Your task to perform on an android device: open the mobile data screen to see how much data has been used Image 0: 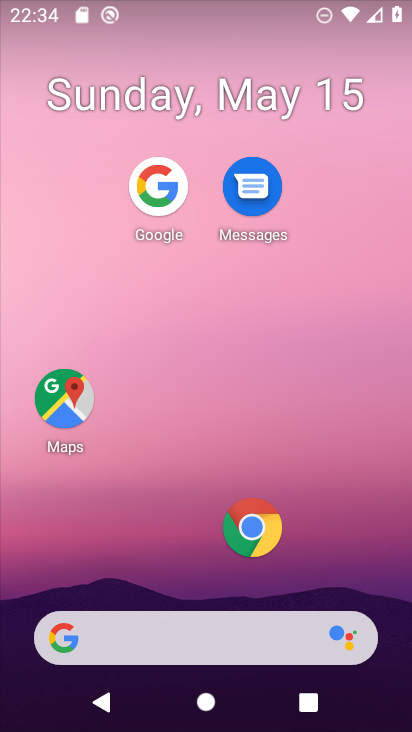
Step 0: press home button
Your task to perform on an android device: open the mobile data screen to see how much data has been used Image 1: 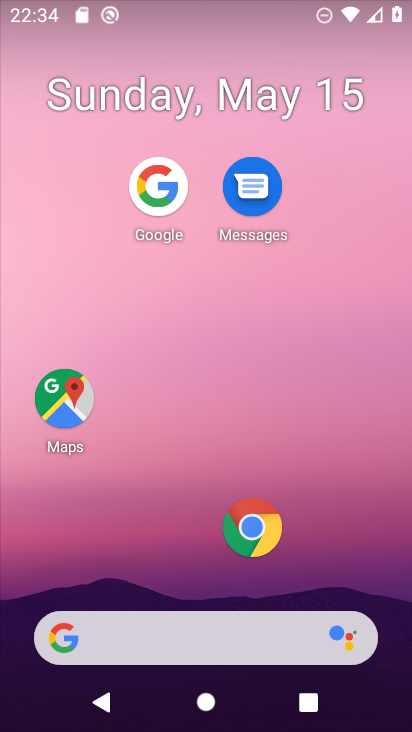
Step 1: drag from (182, 642) to (304, 165)
Your task to perform on an android device: open the mobile data screen to see how much data has been used Image 2: 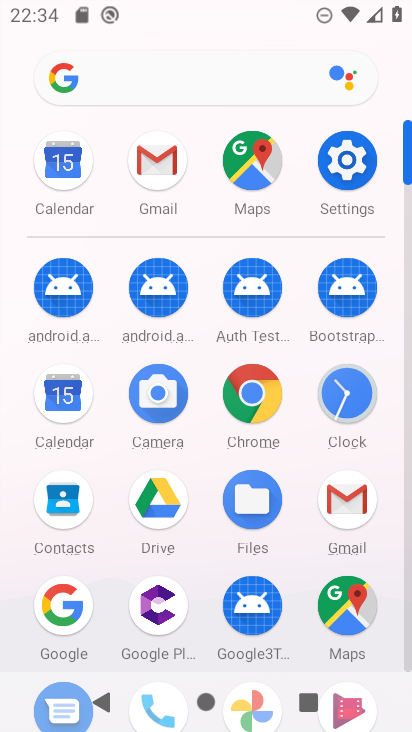
Step 2: click (357, 168)
Your task to perform on an android device: open the mobile data screen to see how much data has been used Image 3: 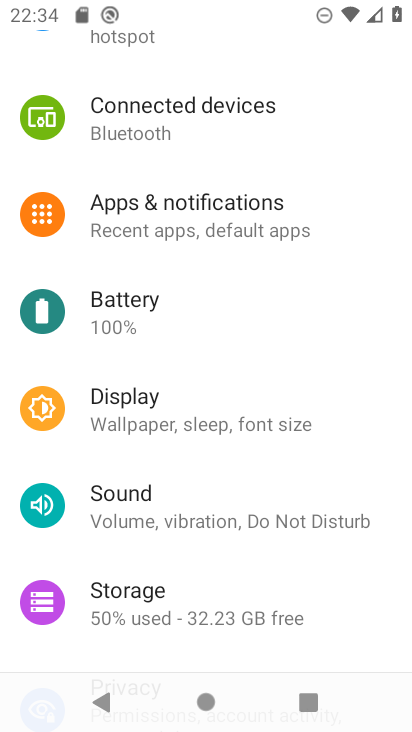
Step 3: drag from (328, 155) to (204, 531)
Your task to perform on an android device: open the mobile data screen to see how much data has been used Image 4: 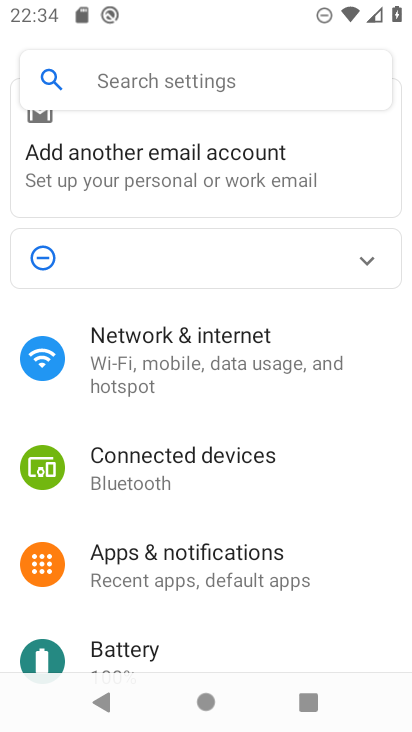
Step 4: click (219, 355)
Your task to perform on an android device: open the mobile data screen to see how much data has been used Image 5: 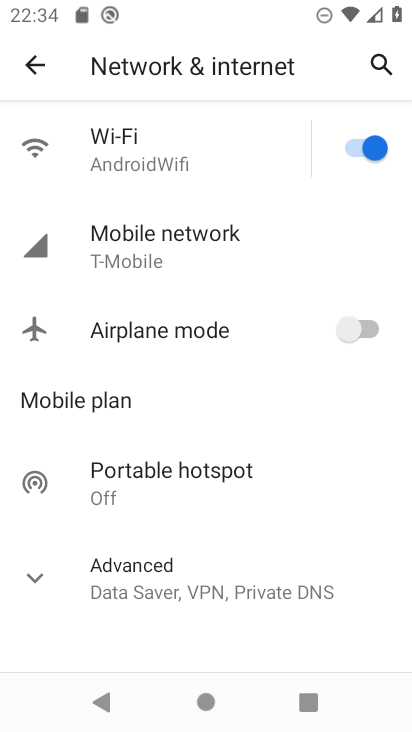
Step 5: click (188, 250)
Your task to perform on an android device: open the mobile data screen to see how much data has been used Image 6: 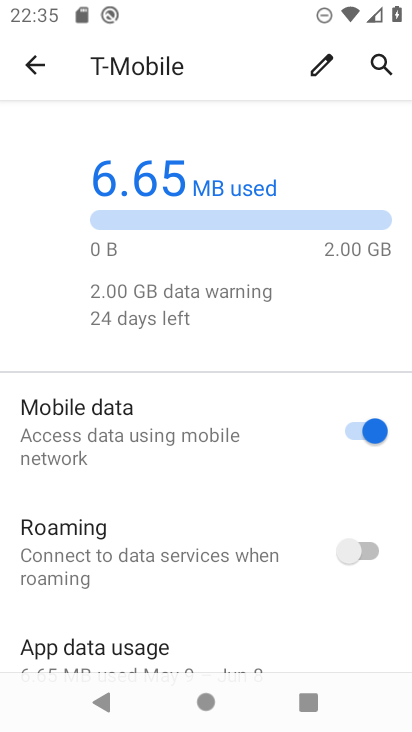
Step 6: task complete